Your task to perform on an android device: Do I have any events tomorrow? Image 0: 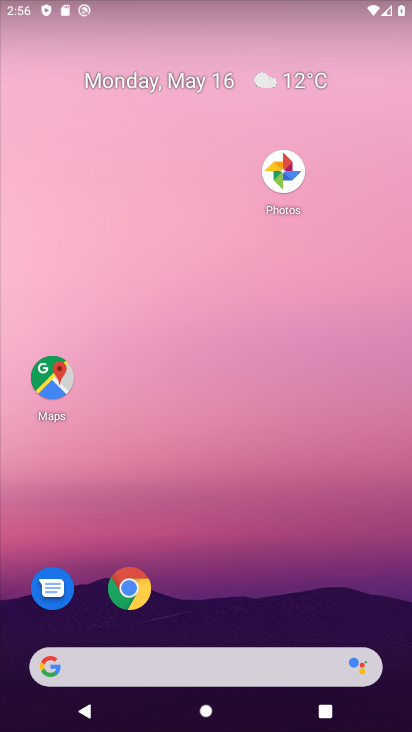
Step 0: click (177, 76)
Your task to perform on an android device: Do I have any events tomorrow? Image 1: 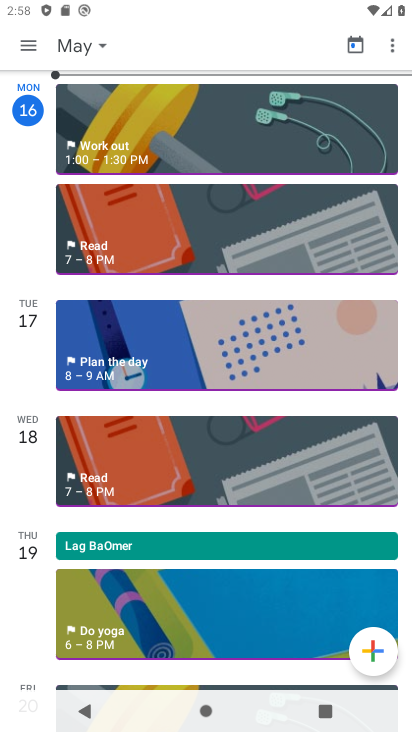
Step 1: task complete